Your task to perform on an android device: Open maps Image 0: 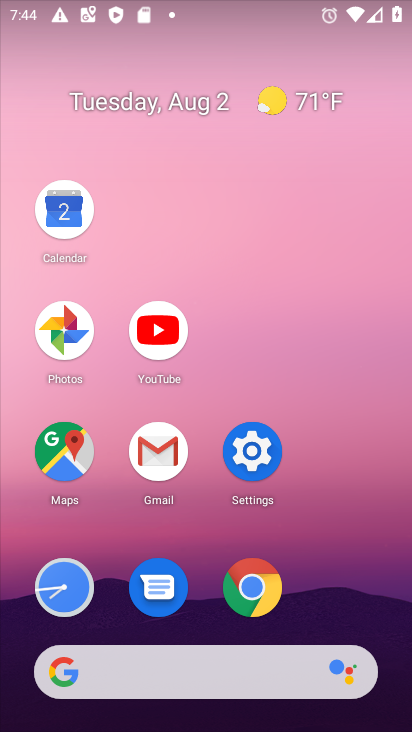
Step 0: click (60, 459)
Your task to perform on an android device: Open maps Image 1: 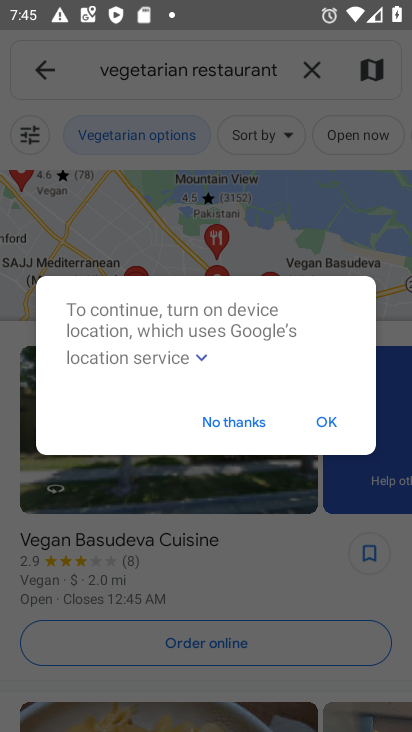
Step 1: click (322, 419)
Your task to perform on an android device: Open maps Image 2: 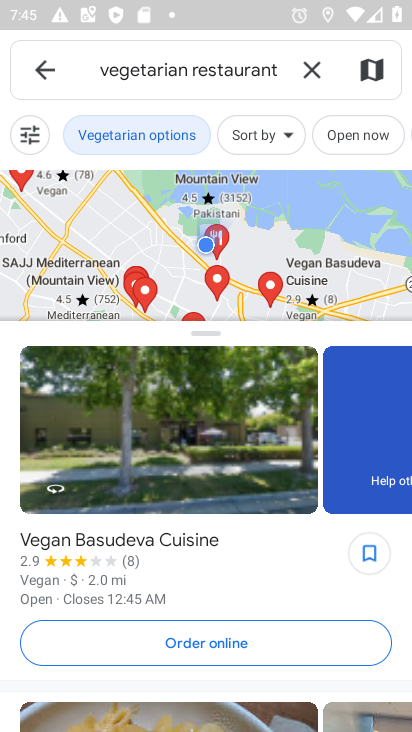
Step 2: click (42, 68)
Your task to perform on an android device: Open maps Image 3: 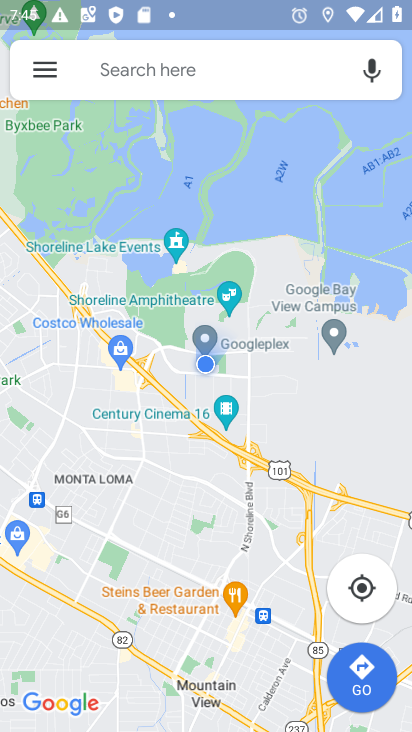
Step 3: task complete